Your task to perform on an android device: Open the Play Movies app and select the watchlist tab. Image 0: 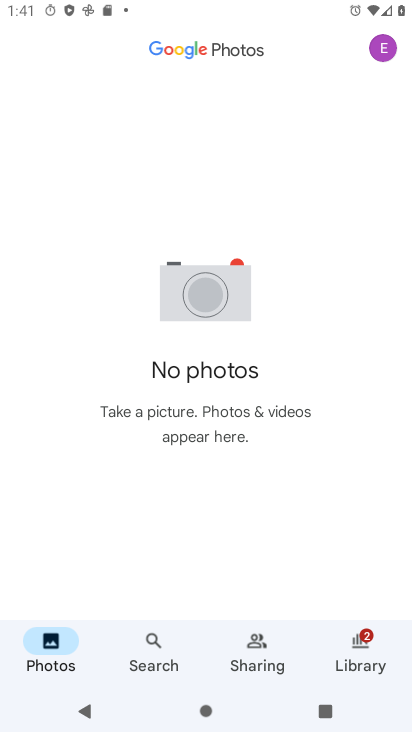
Step 0: press home button
Your task to perform on an android device: Open the Play Movies app and select the watchlist tab. Image 1: 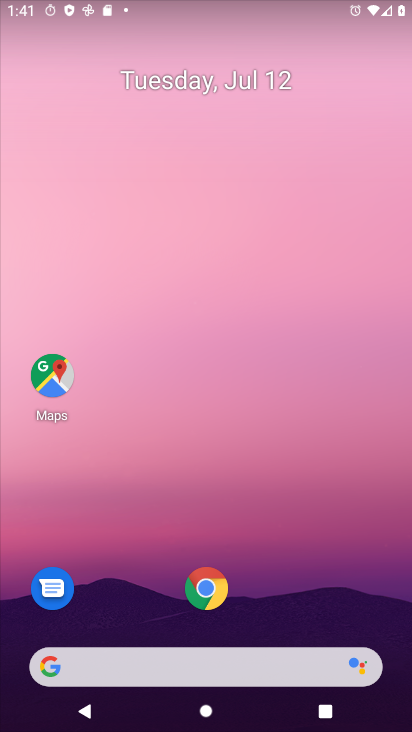
Step 1: drag from (243, 666) to (297, 322)
Your task to perform on an android device: Open the Play Movies app and select the watchlist tab. Image 2: 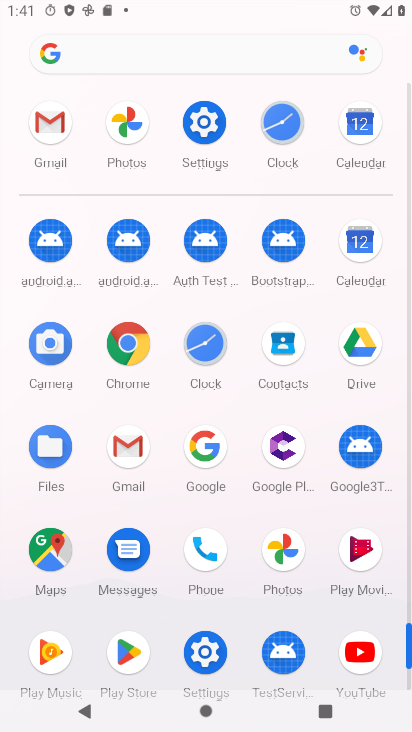
Step 2: click (353, 542)
Your task to perform on an android device: Open the Play Movies app and select the watchlist tab. Image 3: 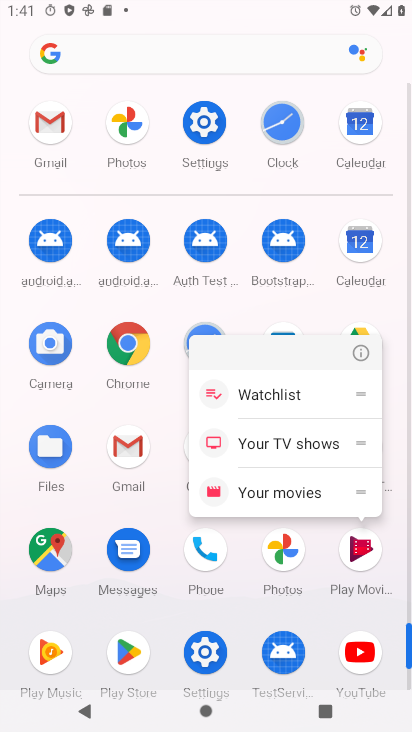
Step 3: click (353, 540)
Your task to perform on an android device: Open the Play Movies app and select the watchlist tab. Image 4: 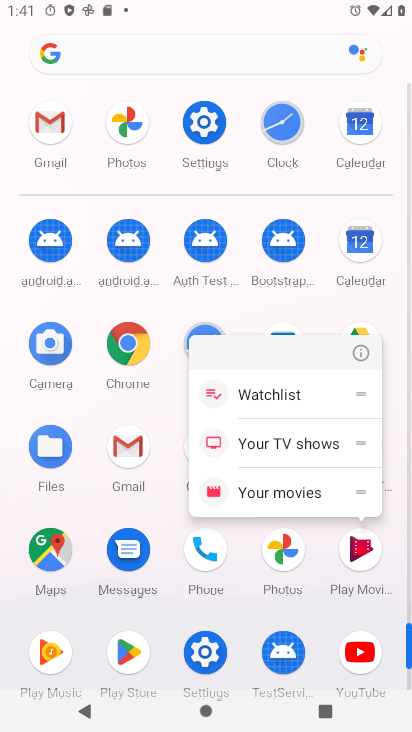
Step 4: click (353, 539)
Your task to perform on an android device: Open the Play Movies app and select the watchlist tab. Image 5: 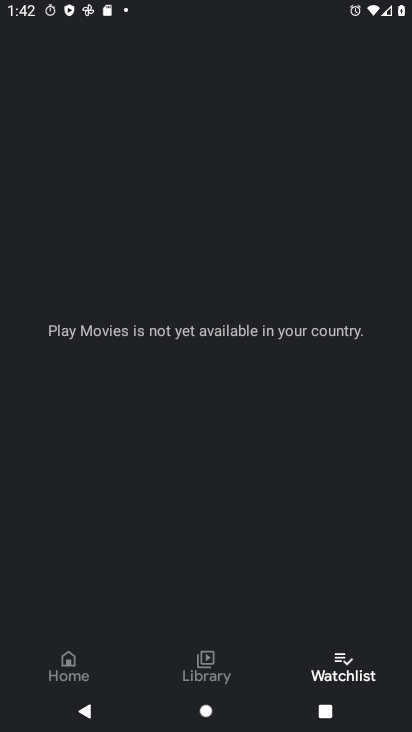
Step 5: task complete